Your task to perform on an android device: Go to Reddit.com Image 0: 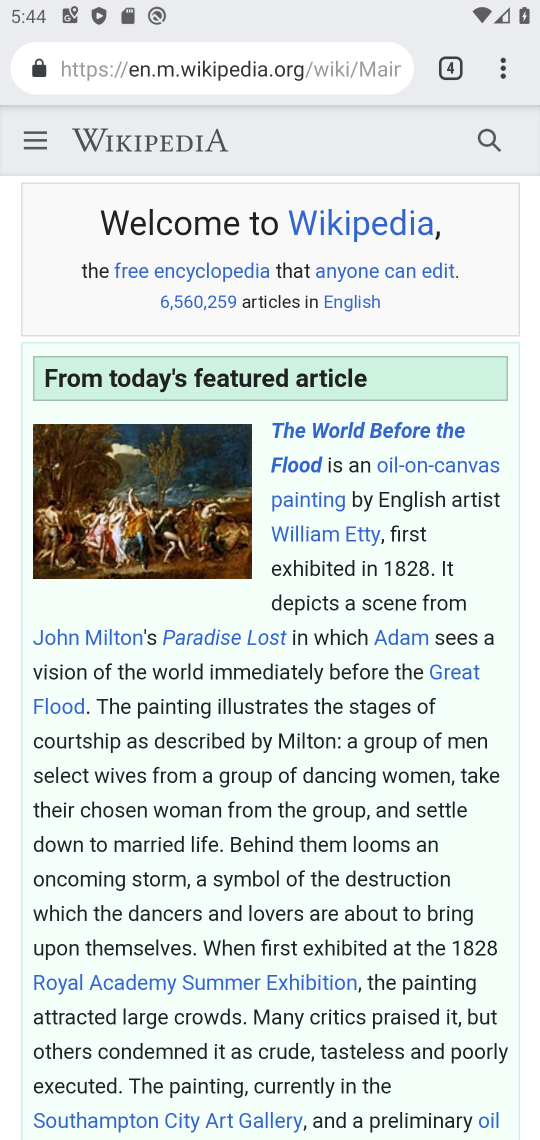
Step 0: press home button
Your task to perform on an android device: Go to Reddit.com Image 1: 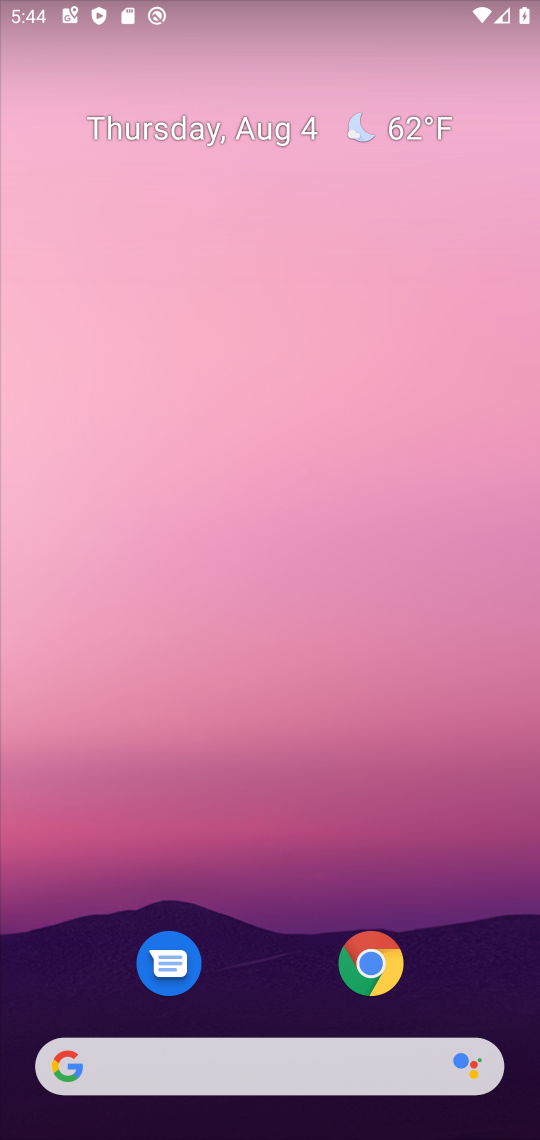
Step 1: click (371, 963)
Your task to perform on an android device: Go to Reddit.com Image 2: 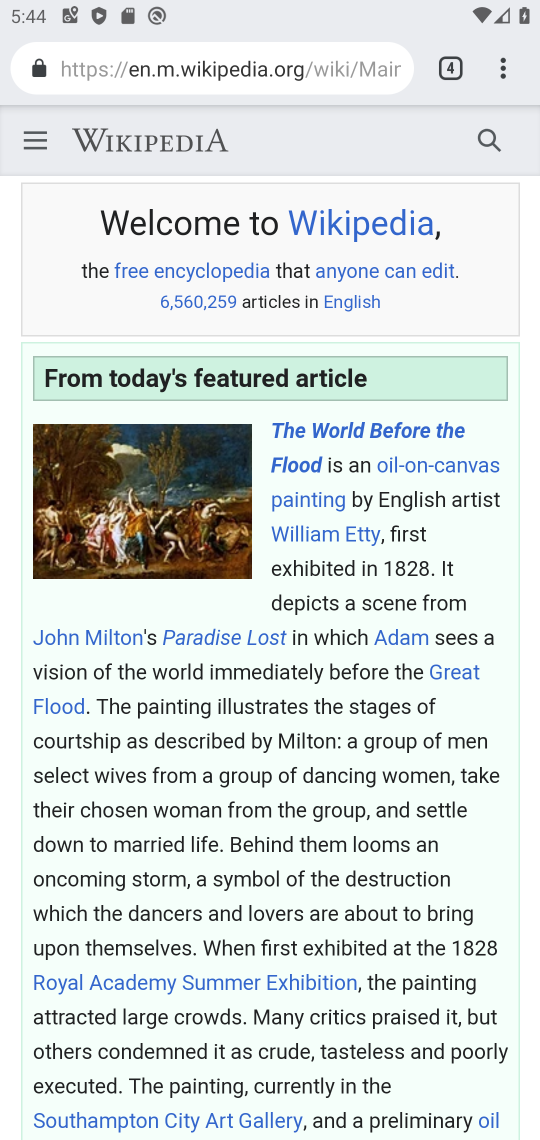
Step 2: click (499, 65)
Your task to perform on an android device: Go to Reddit.com Image 3: 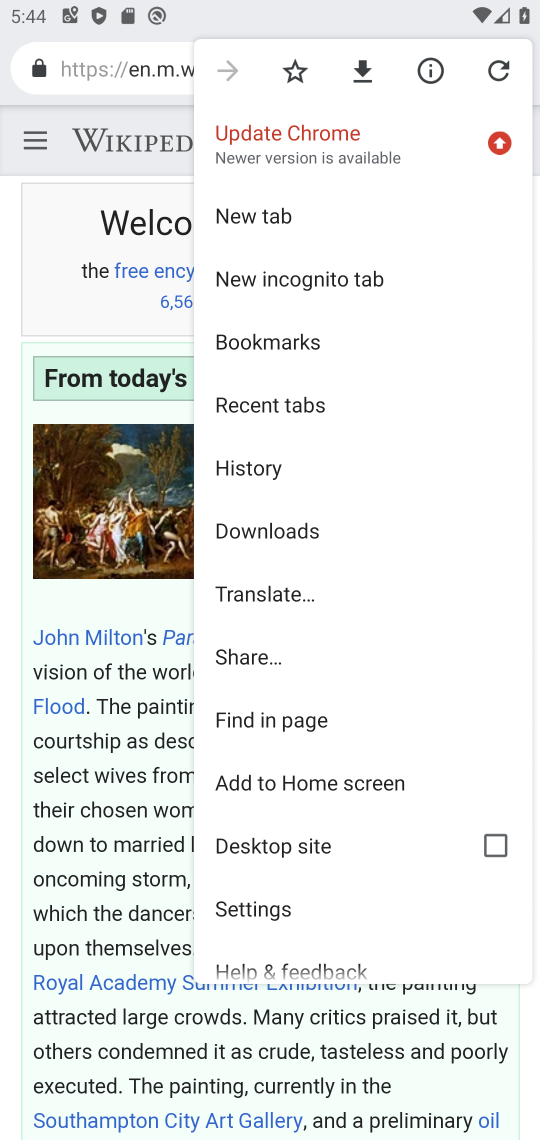
Step 3: click (256, 212)
Your task to perform on an android device: Go to Reddit.com Image 4: 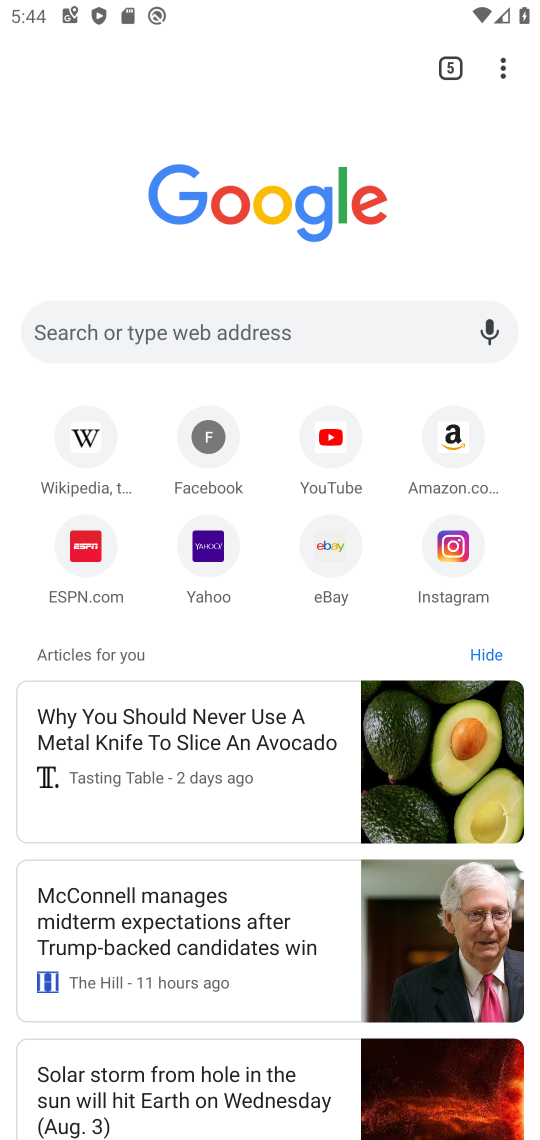
Step 4: click (247, 327)
Your task to perform on an android device: Go to Reddit.com Image 5: 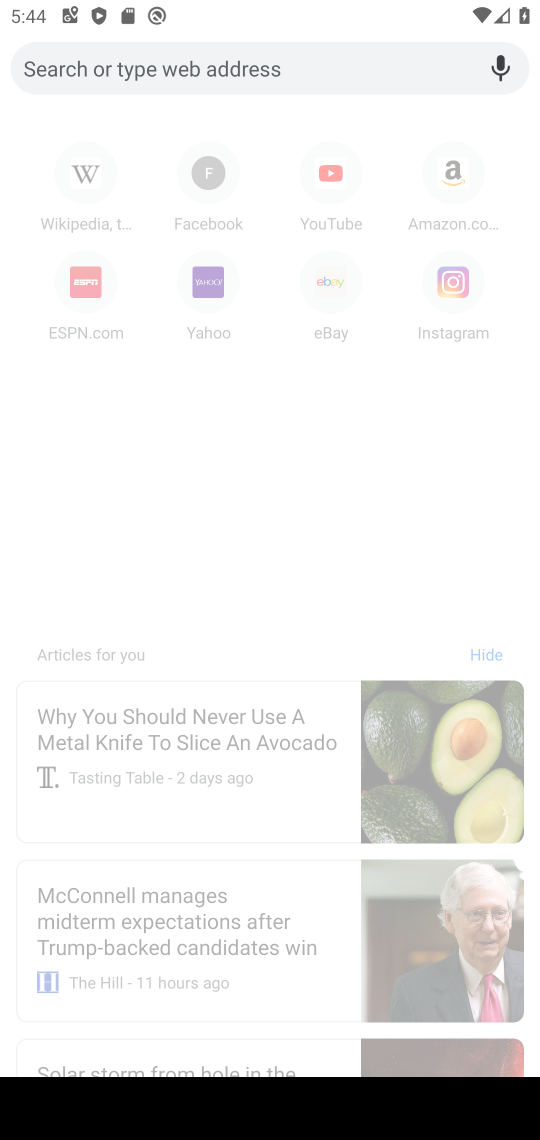
Step 5: type "reddit.com"
Your task to perform on an android device: Go to Reddit.com Image 6: 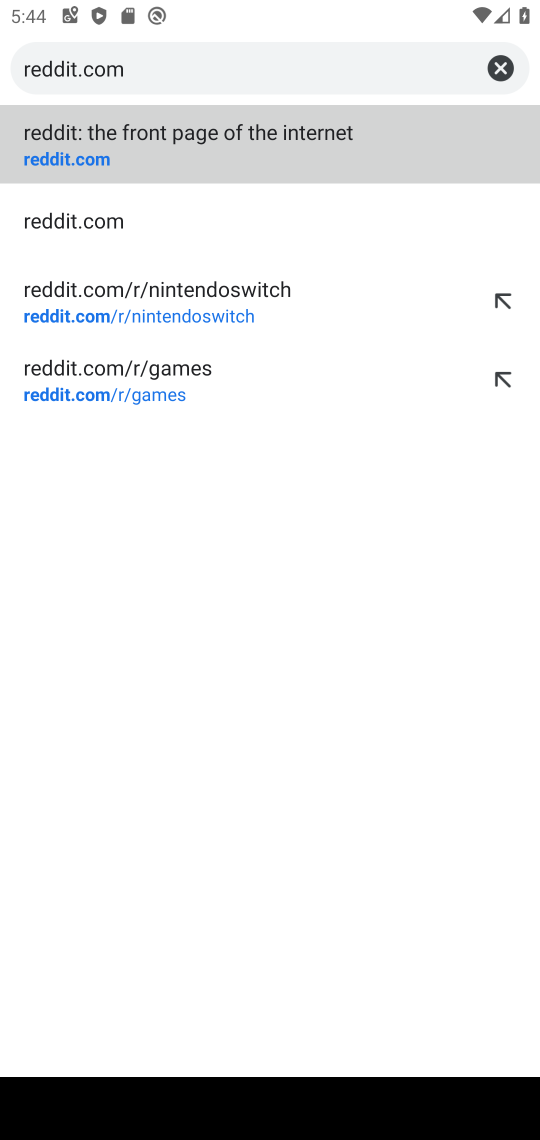
Step 6: click (150, 139)
Your task to perform on an android device: Go to Reddit.com Image 7: 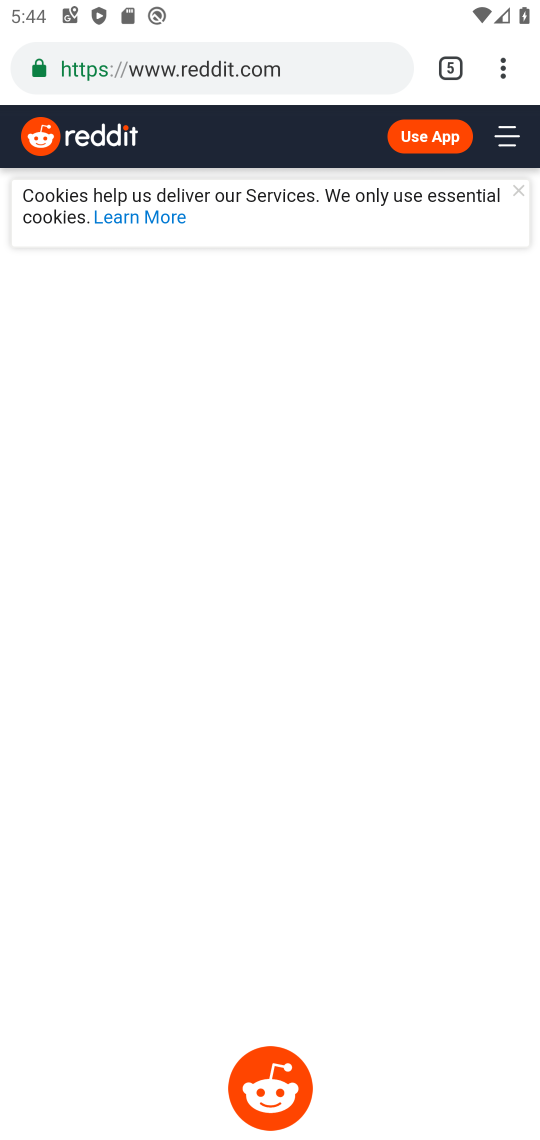
Step 7: task complete